Your task to perform on an android device: turn off location Image 0: 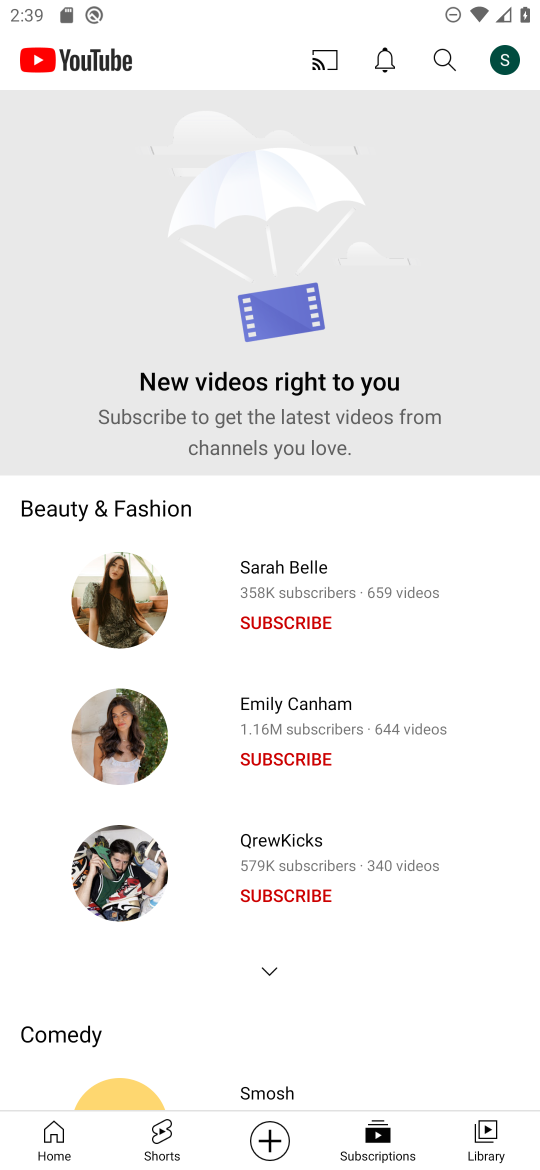
Step 0: press home button
Your task to perform on an android device: turn off location Image 1: 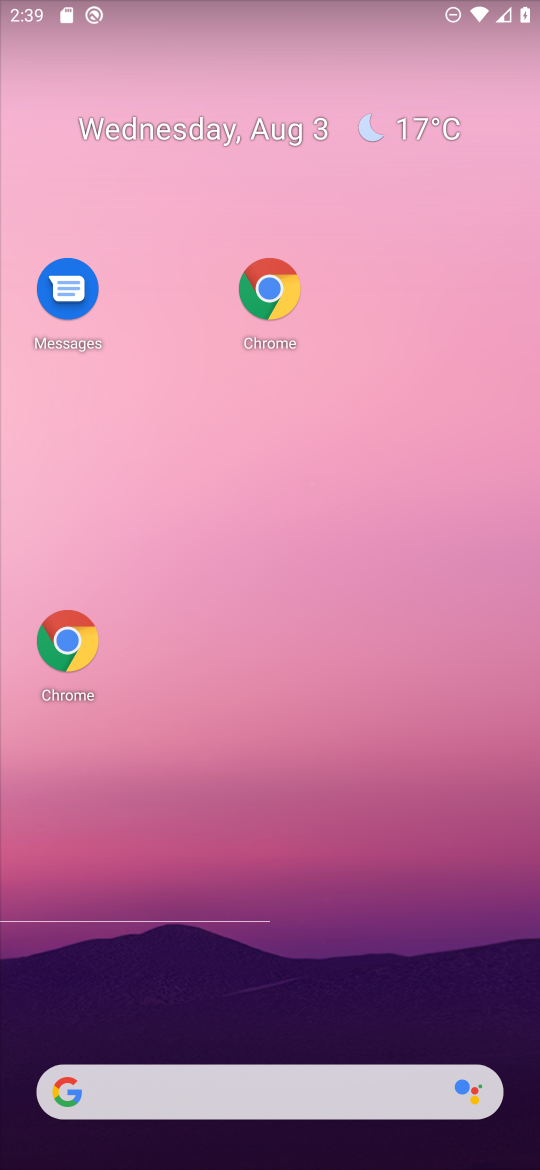
Step 1: drag from (338, 943) to (449, 193)
Your task to perform on an android device: turn off location Image 2: 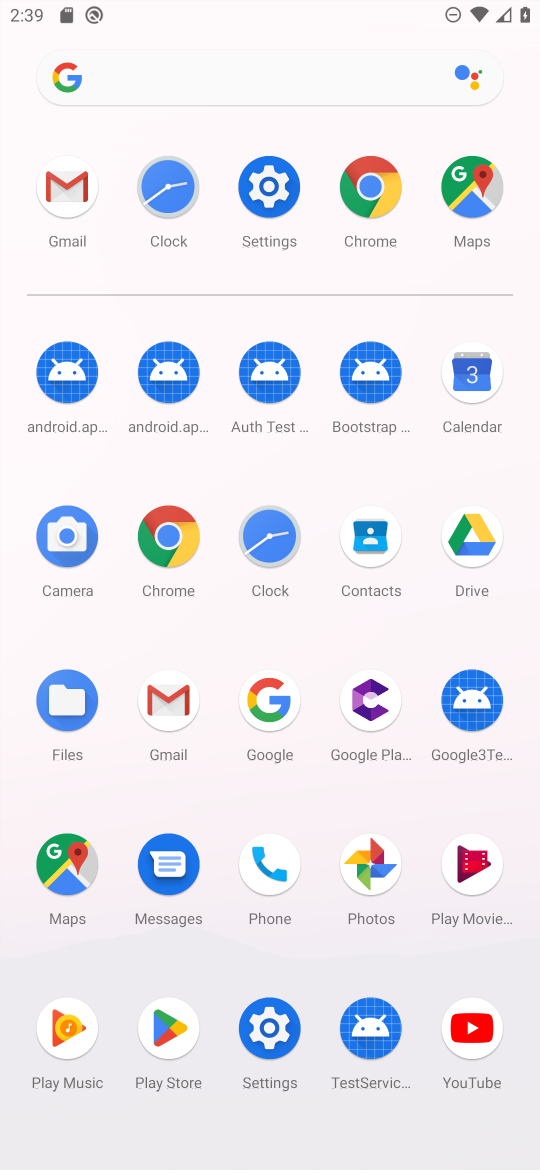
Step 2: click (245, 200)
Your task to perform on an android device: turn off location Image 3: 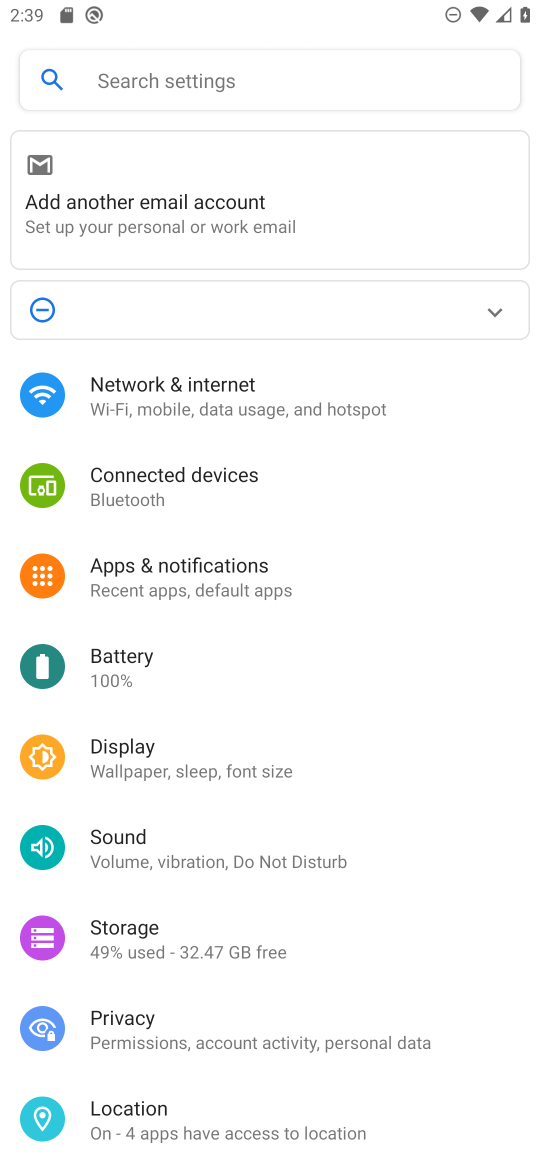
Step 3: click (132, 1112)
Your task to perform on an android device: turn off location Image 4: 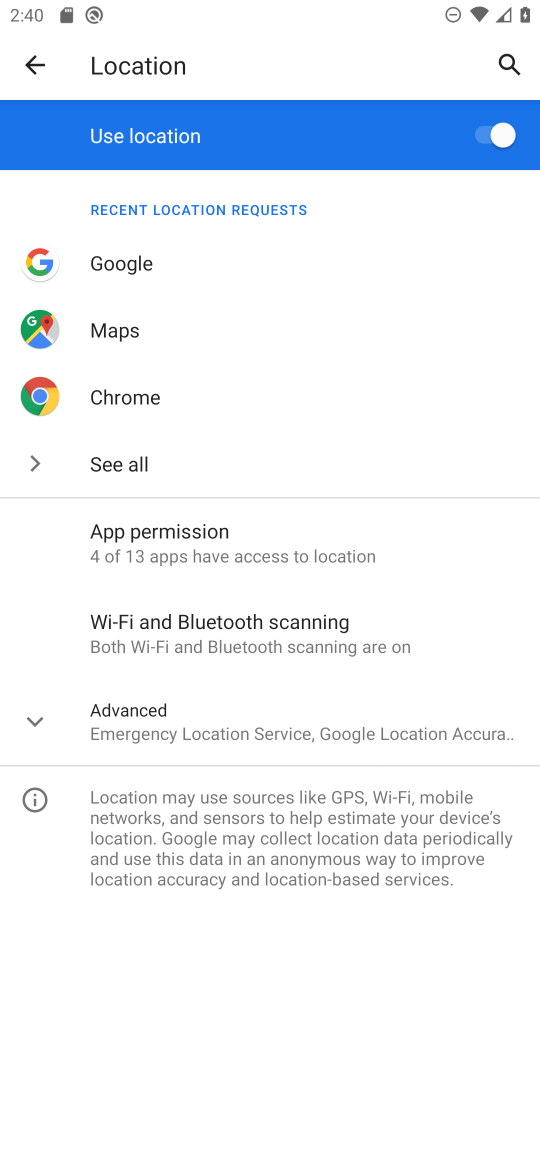
Step 4: task complete